Your task to perform on an android device: Check the new Jordans on Nike. Image 0: 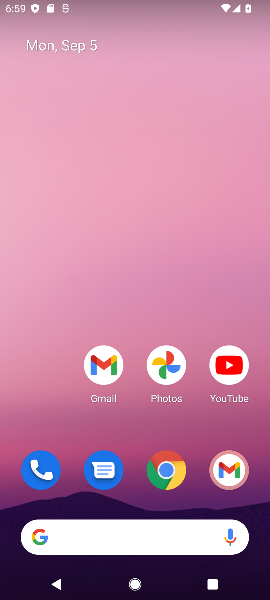
Step 0: click (109, 545)
Your task to perform on an android device: Check the new Jordans on Nike. Image 1: 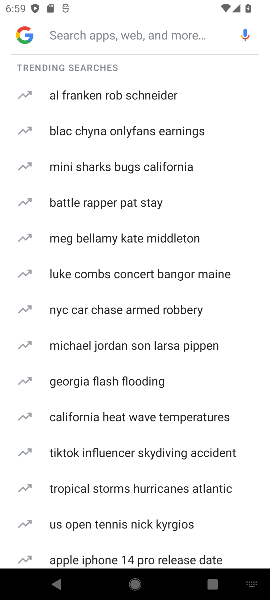
Step 1: type "nike"
Your task to perform on an android device: Check the new Jordans on Nike. Image 2: 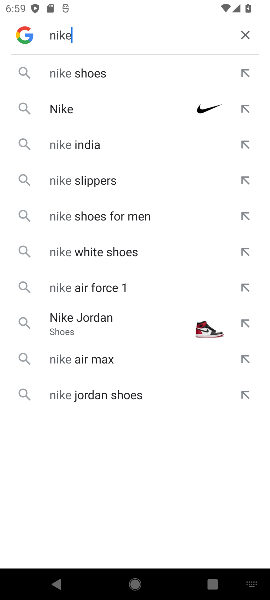
Step 2: click (78, 105)
Your task to perform on an android device: Check the new Jordans on Nike. Image 3: 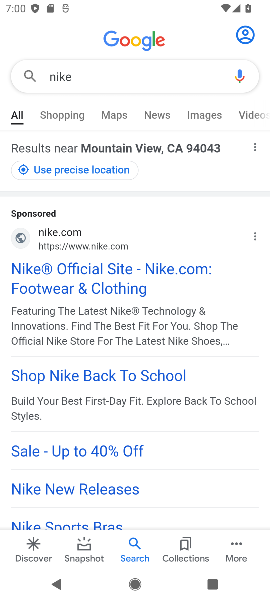
Step 3: click (69, 228)
Your task to perform on an android device: Check the new Jordans on Nike. Image 4: 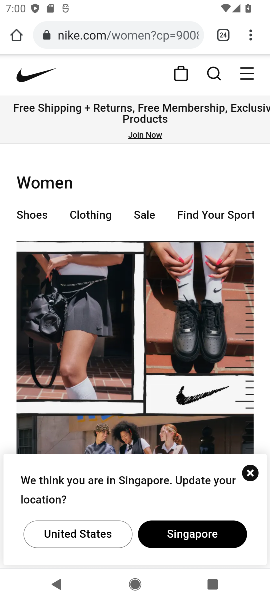
Step 4: click (213, 72)
Your task to perform on an android device: Check the new Jordans on Nike. Image 5: 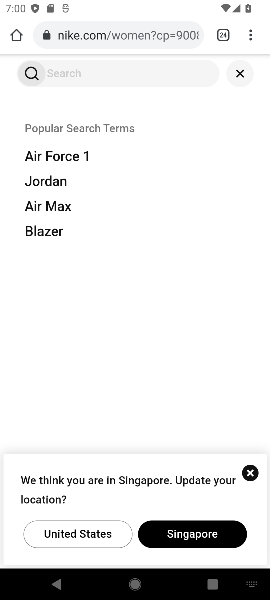
Step 5: type " new Jordans"
Your task to perform on an android device: Check the new Jordans on Nike. Image 6: 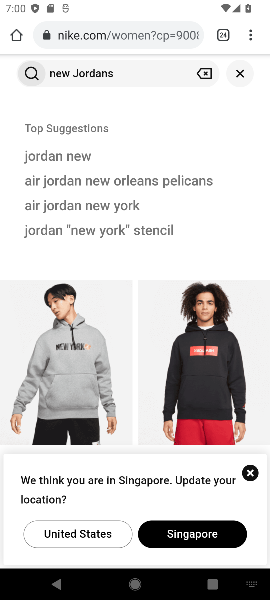
Step 6: task complete